Your task to perform on an android device: Open the Play Movies app and select the watchlist tab. Image 0: 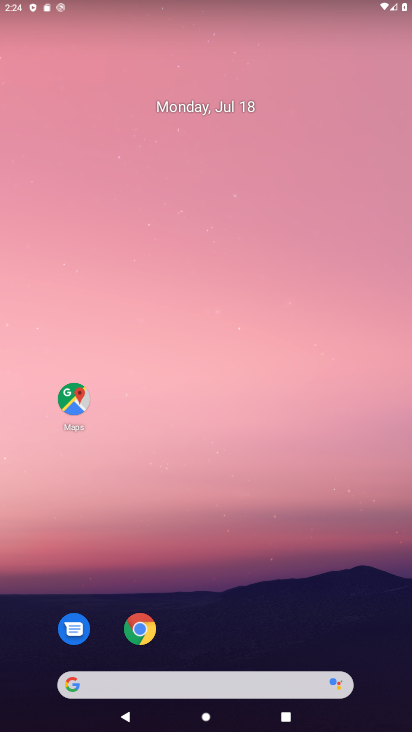
Step 0: drag from (218, 654) to (286, 217)
Your task to perform on an android device: Open the Play Movies app and select the watchlist tab. Image 1: 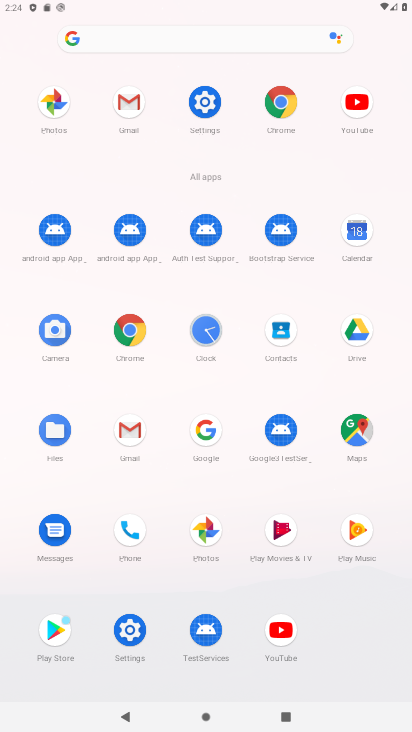
Step 1: click (288, 538)
Your task to perform on an android device: Open the Play Movies app and select the watchlist tab. Image 2: 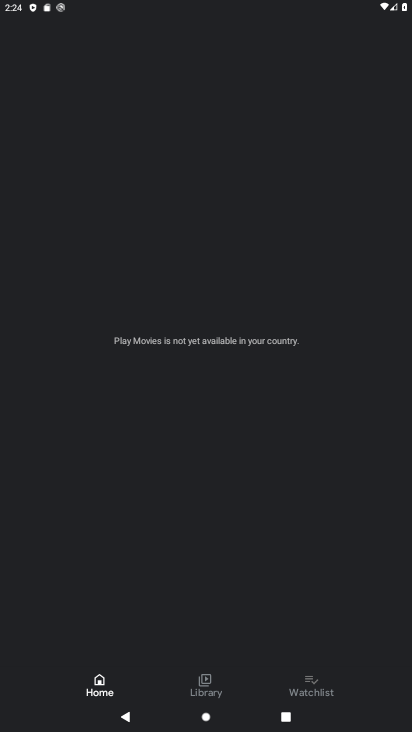
Step 2: click (294, 679)
Your task to perform on an android device: Open the Play Movies app and select the watchlist tab. Image 3: 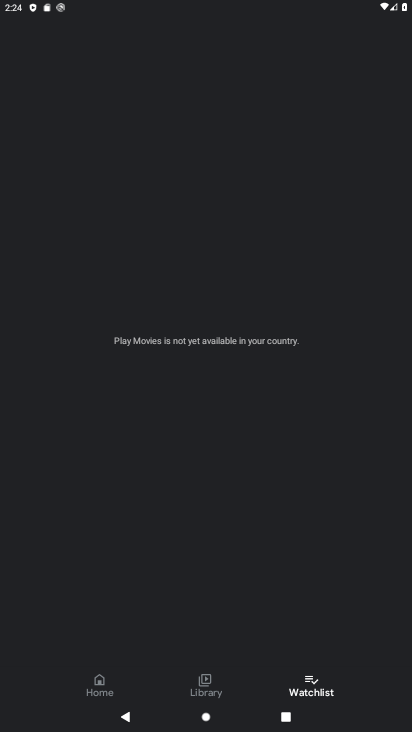
Step 3: task complete